Your task to perform on an android device: change notifications settings Image 0: 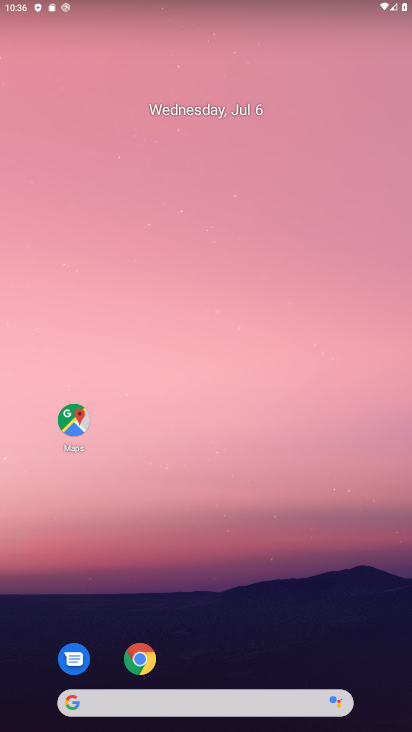
Step 0: drag from (226, 648) to (229, 161)
Your task to perform on an android device: change notifications settings Image 1: 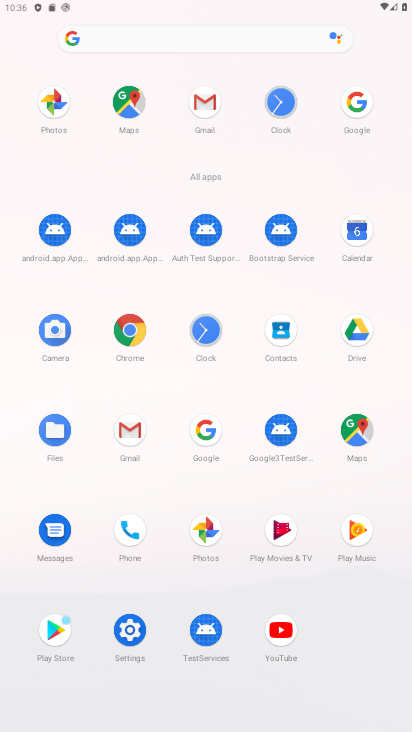
Step 1: click (127, 624)
Your task to perform on an android device: change notifications settings Image 2: 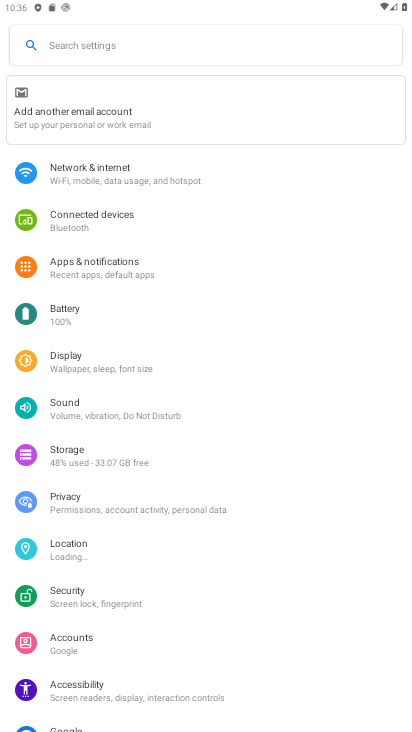
Step 2: click (171, 275)
Your task to perform on an android device: change notifications settings Image 3: 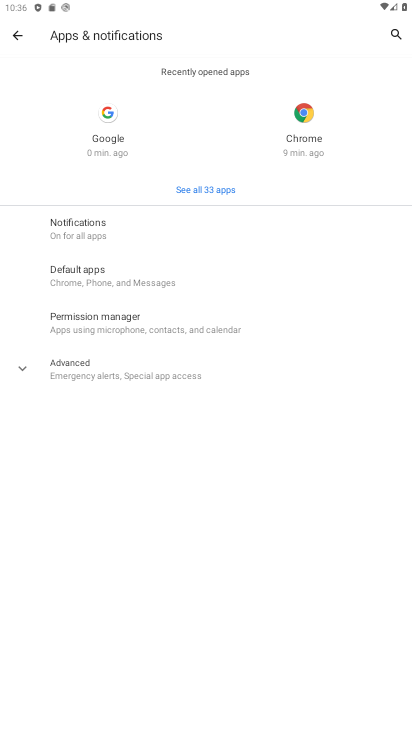
Step 3: click (80, 234)
Your task to perform on an android device: change notifications settings Image 4: 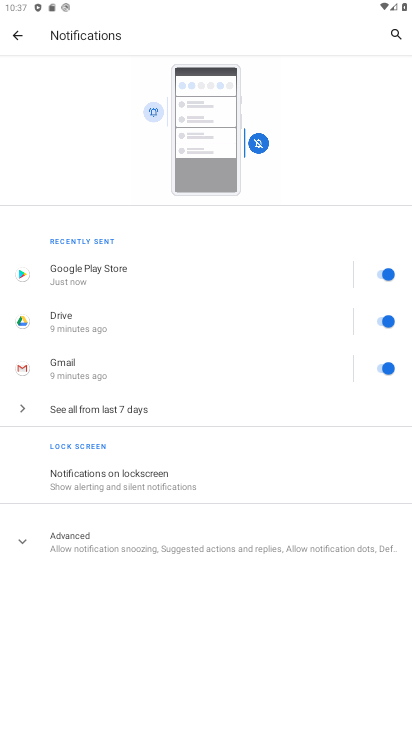
Step 4: click (181, 490)
Your task to perform on an android device: change notifications settings Image 5: 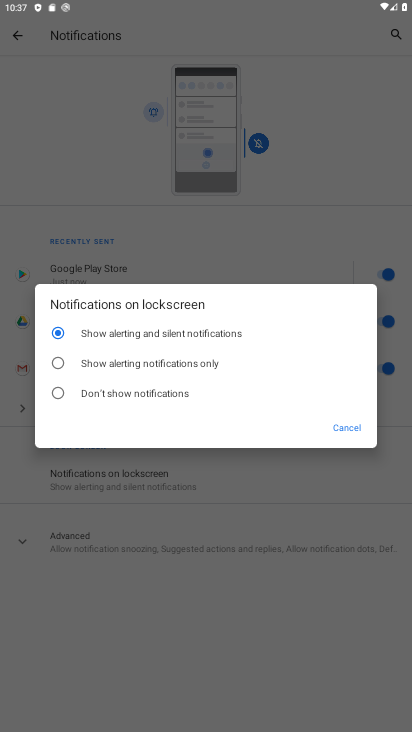
Step 5: click (181, 385)
Your task to perform on an android device: change notifications settings Image 6: 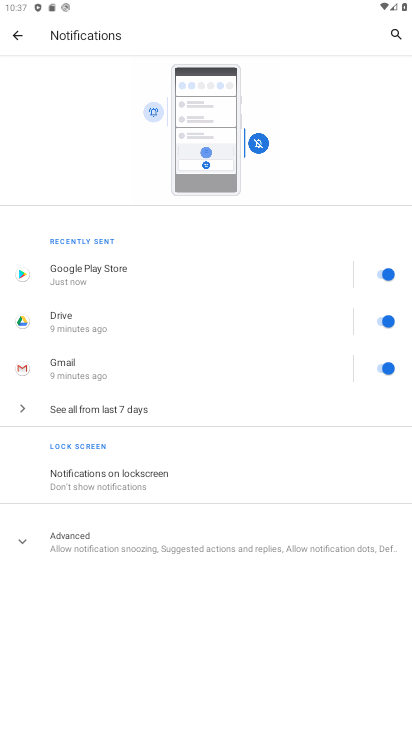
Step 6: task complete